Your task to perform on an android device: Open location settings Image 0: 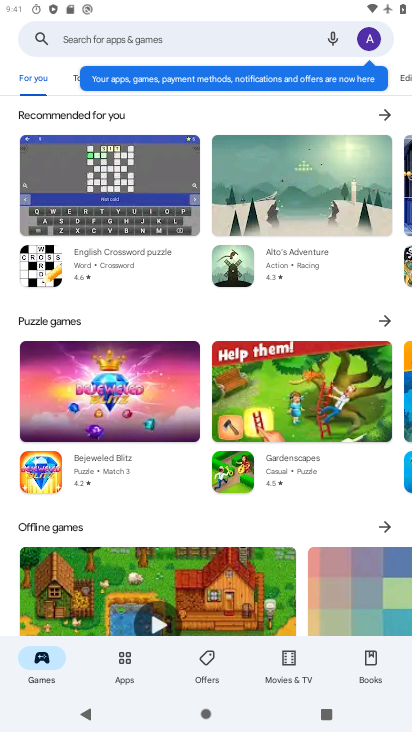
Step 0: press home button
Your task to perform on an android device: Open location settings Image 1: 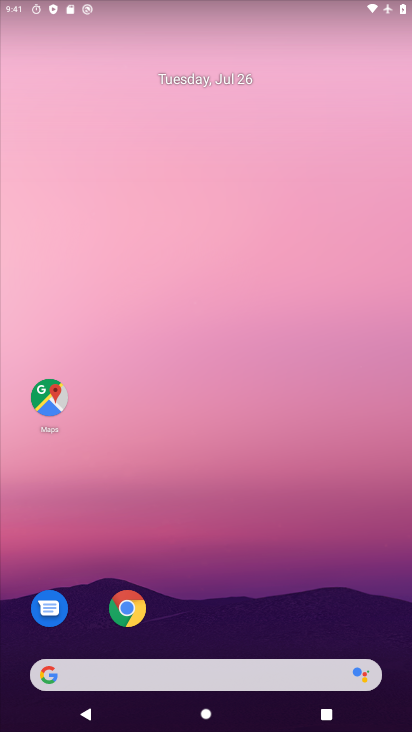
Step 1: drag from (174, 637) to (126, 27)
Your task to perform on an android device: Open location settings Image 2: 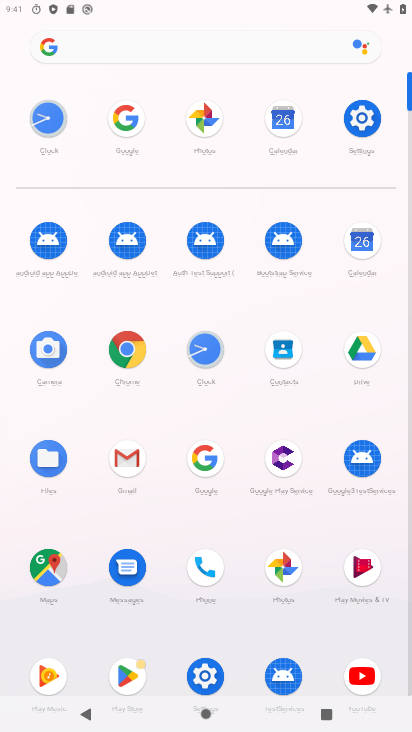
Step 2: click (351, 105)
Your task to perform on an android device: Open location settings Image 3: 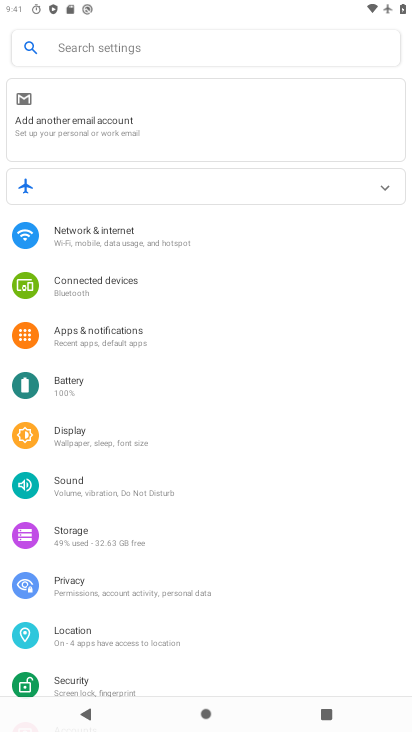
Step 3: click (157, 624)
Your task to perform on an android device: Open location settings Image 4: 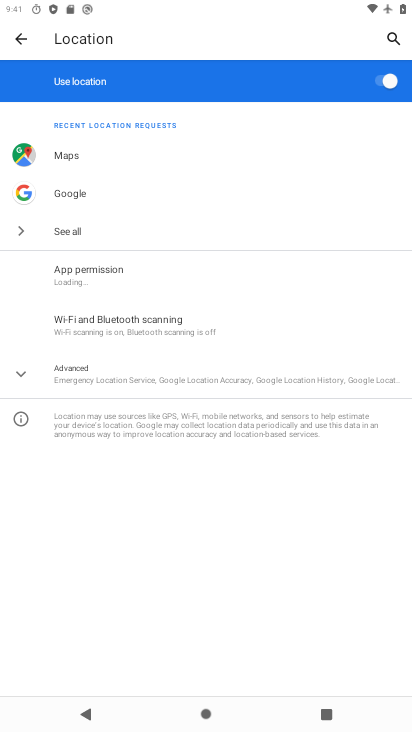
Step 4: task complete